Your task to perform on an android device: see creations saved in the google photos Image 0: 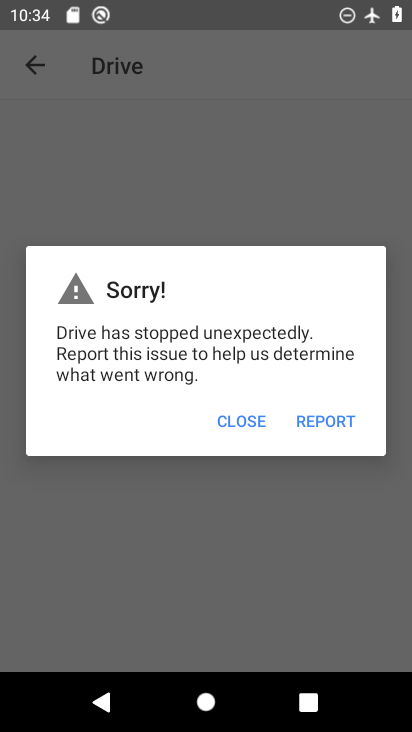
Step 0: press home button
Your task to perform on an android device: see creations saved in the google photos Image 1: 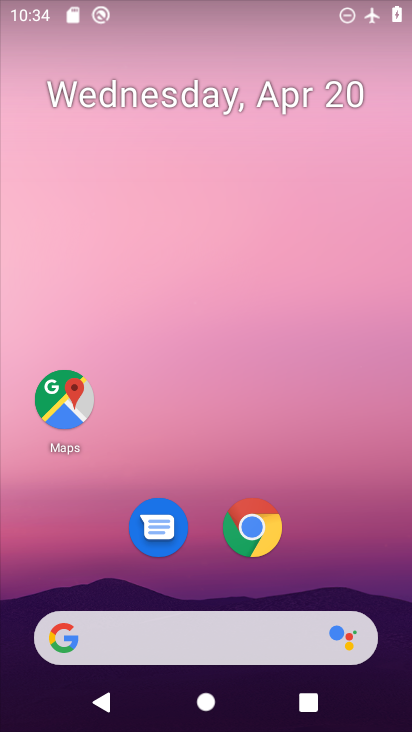
Step 1: drag from (200, 582) to (365, 4)
Your task to perform on an android device: see creations saved in the google photos Image 2: 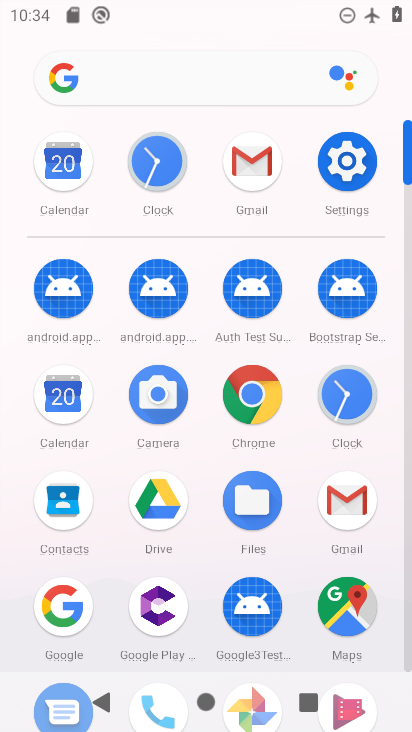
Step 2: drag from (300, 550) to (373, 174)
Your task to perform on an android device: see creations saved in the google photos Image 3: 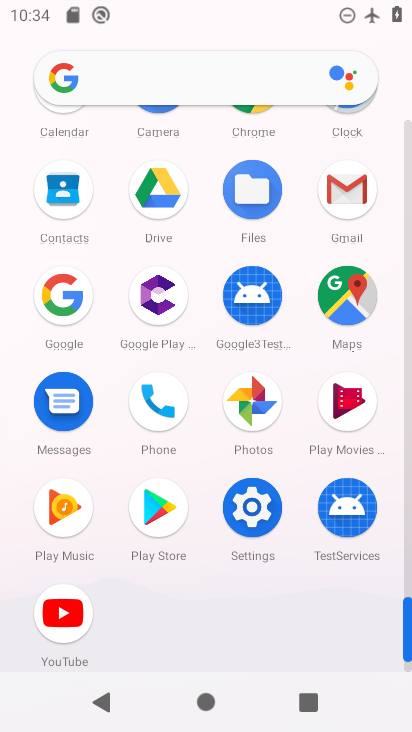
Step 3: click (251, 412)
Your task to perform on an android device: see creations saved in the google photos Image 4: 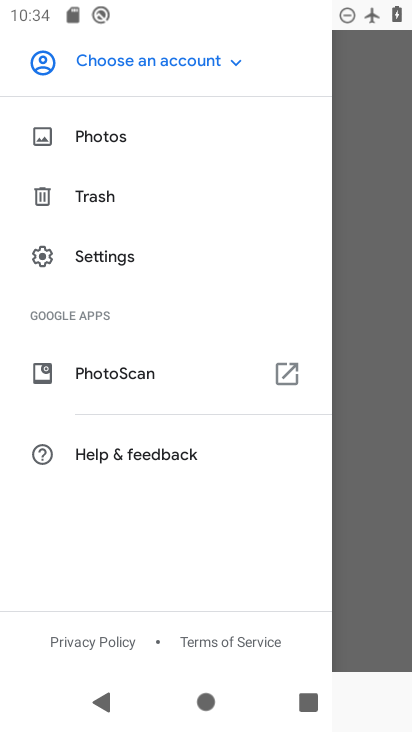
Step 4: click (369, 248)
Your task to perform on an android device: see creations saved in the google photos Image 5: 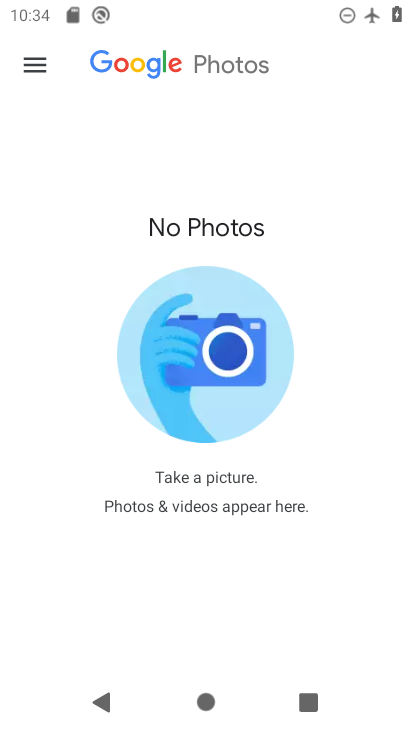
Step 5: task complete